Your task to perform on an android device: open a new tab in the chrome app Image 0: 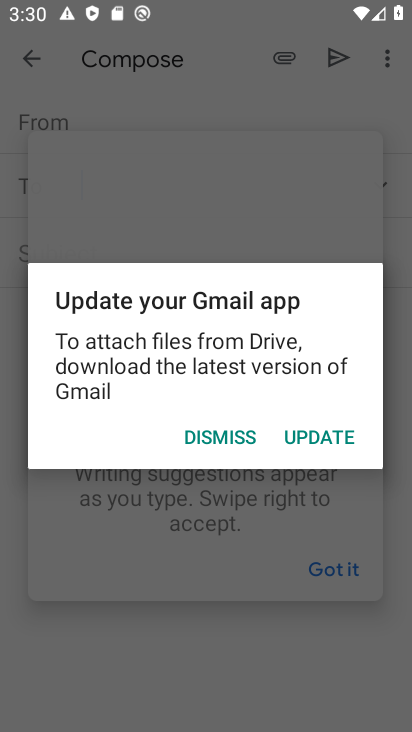
Step 0: press home button
Your task to perform on an android device: open a new tab in the chrome app Image 1: 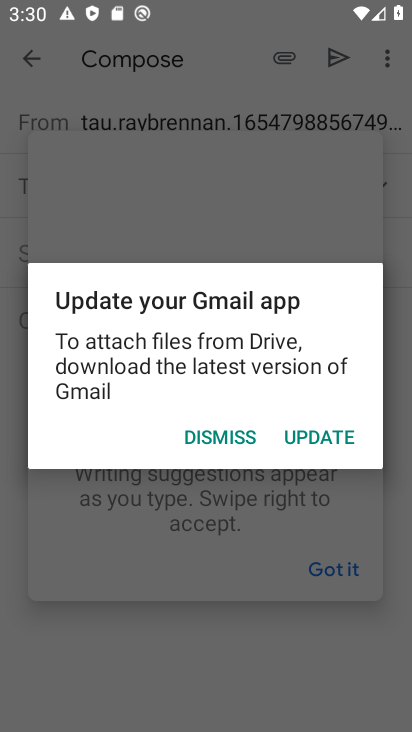
Step 1: press home button
Your task to perform on an android device: open a new tab in the chrome app Image 2: 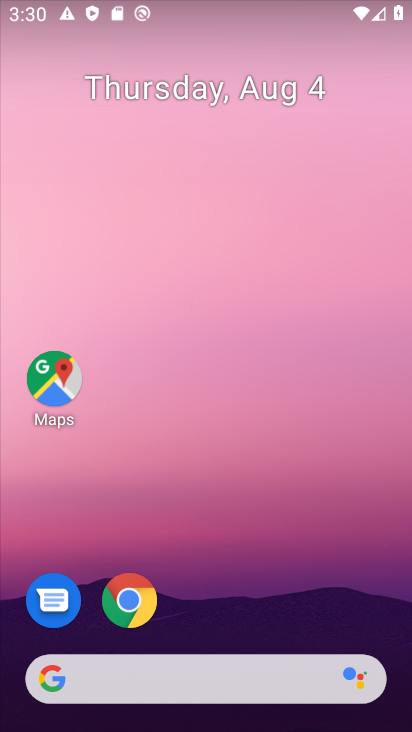
Step 2: drag from (218, 486) to (192, 174)
Your task to perform on an android device: open a new tab in the chrome app Image 3: 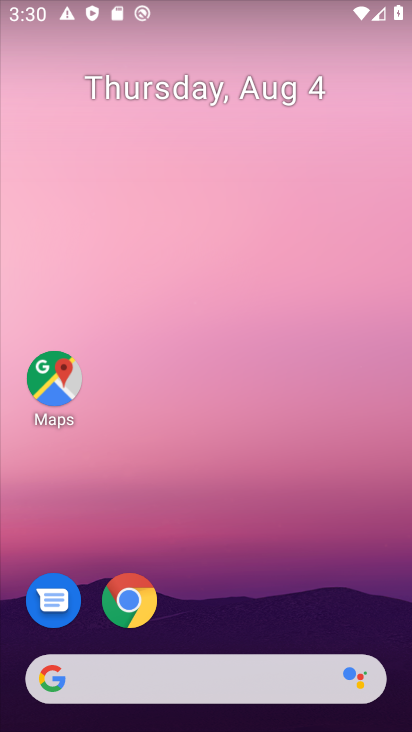
Step 3: drag from (275, 570) to (234, 151)
Your task to perform on an android device: open a new tab in the chrome app Image 4: 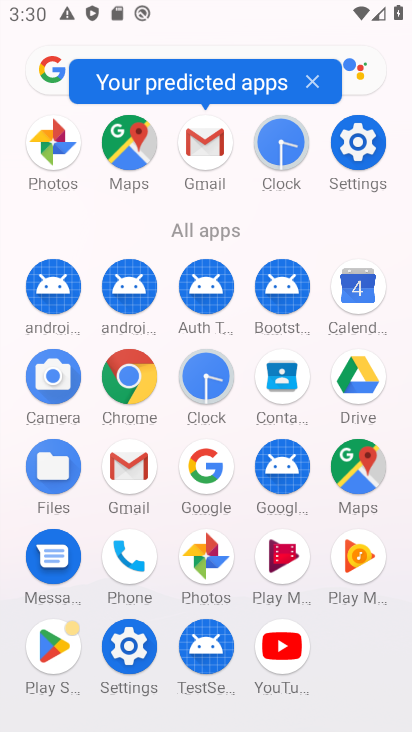
Step 4: click (120, 373)
Your task to perform on an android device: open a new tab in the chrome app Image 5: 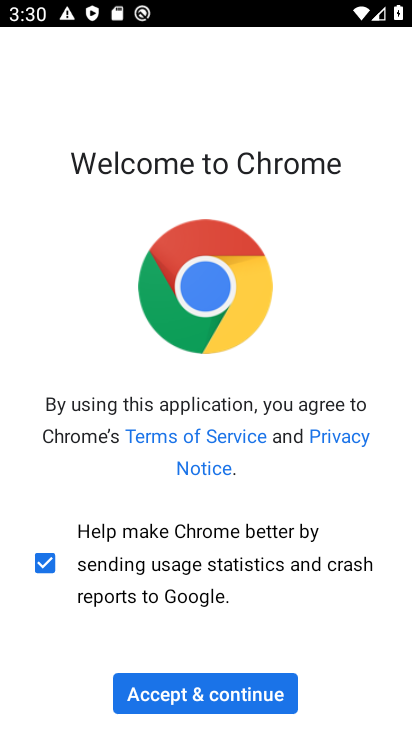
Step 5: click (234, 687)
Your task to perform on an android device: open a new tab in the chrome app Image 6: 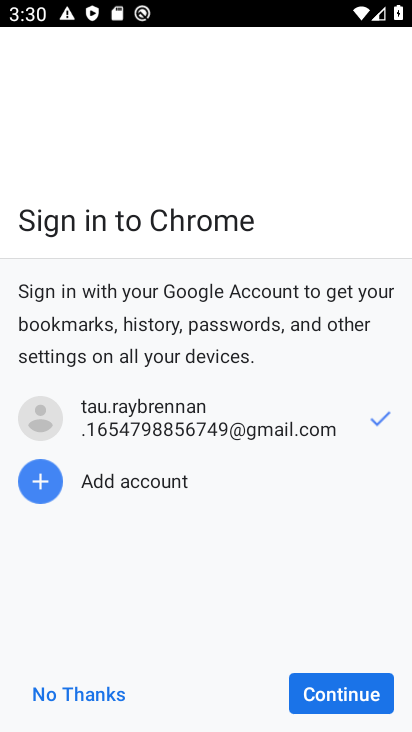
Step 6: click (336, 696)
Your task to perform on an android device: open a new tab in the chrome app Image 7: 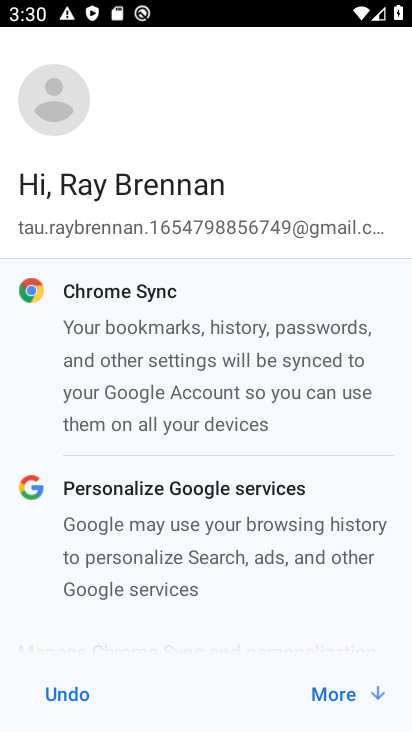
Step 7: click (336, 696)
Your task to perform on an android device: open a new tab in the chrome app Image 8: 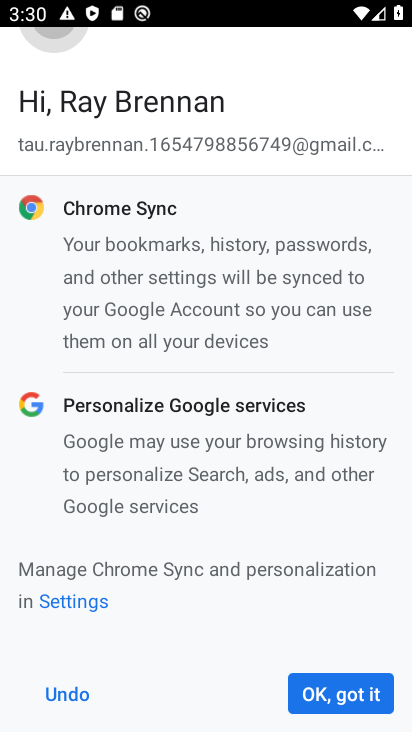
Step 8: click (336, 696)
Your task to perform on an android device: open a new tab in the chrome app Image 9: 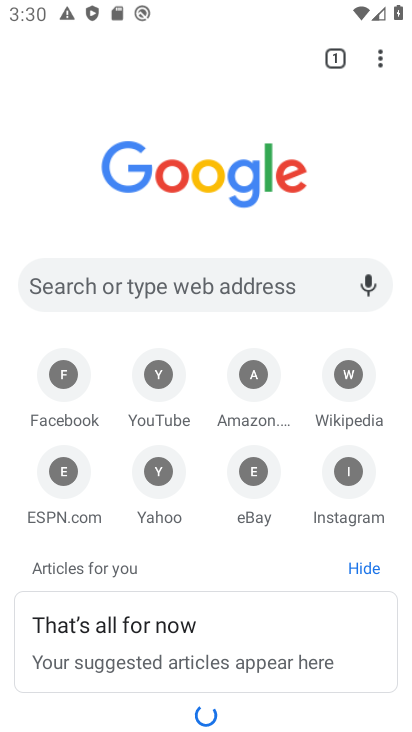
Step 9: task complete